Your task to perform on an android device: turn on location history Image 0: 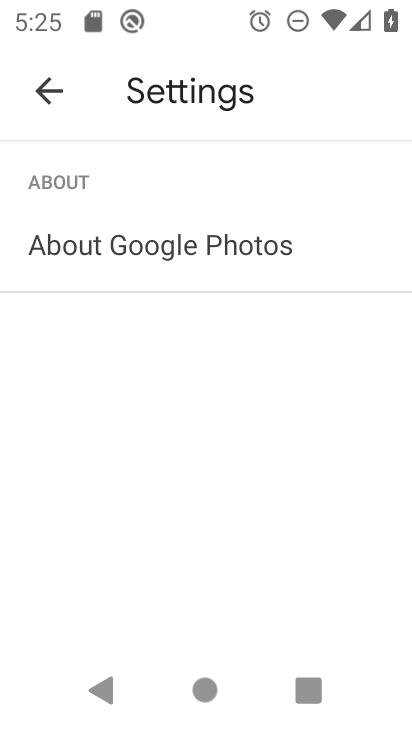
Step 0: press home button
Your task to perform on an android device: turn on location history Image 1: 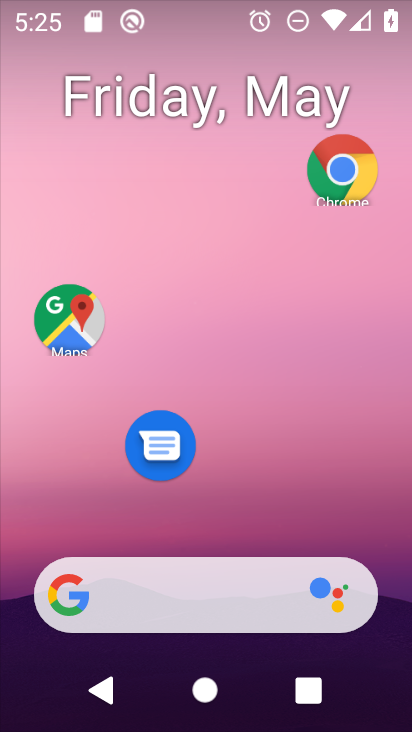
Step 1: drag from (195, 530) to (265, 173)
Your task to perform on an android device: turn on location history Image 2: 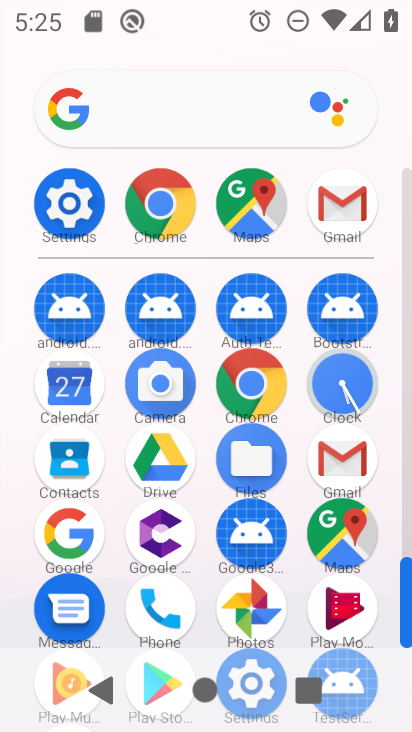
Step 2: click (62, 184)
Your task to perform on an android device: turn on location history Image 3: 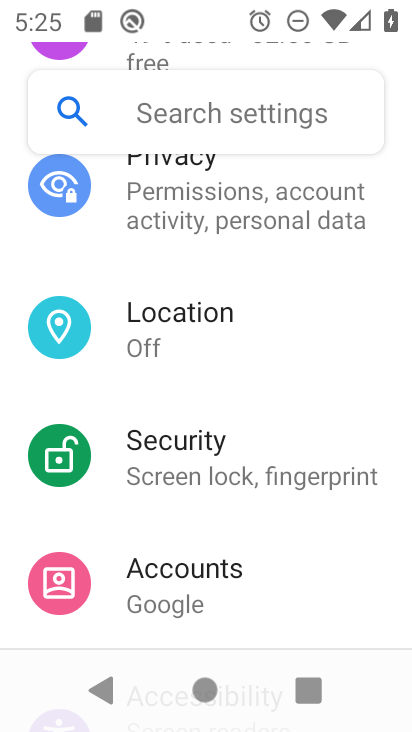
Step 3: click (226, 319)
Your task to perform on an android device: turn on location history Image 4: 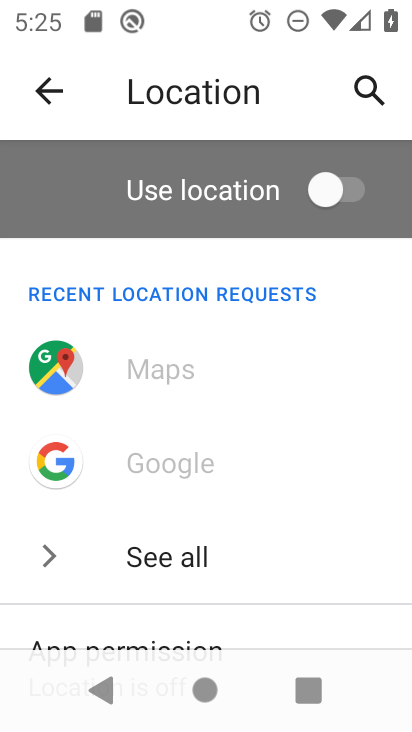
Step 4: drag from (246, 542) to (353, 251)
Your task to perform on an android device: turn on location history Image 5: 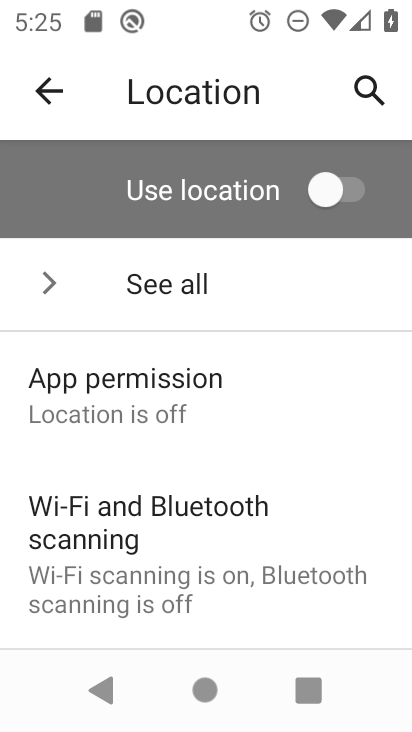
Step 5: drag from (257, 521) to (310, 312)
Your task to perform on an android device: turn on location history Image 6: 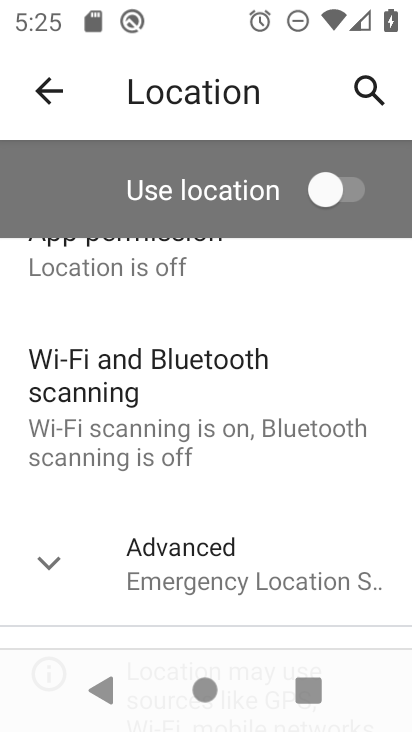
Step 6: drag from (263, 570) to (304, 363)
Your task to perform on an android device: turn on location history Image 7: 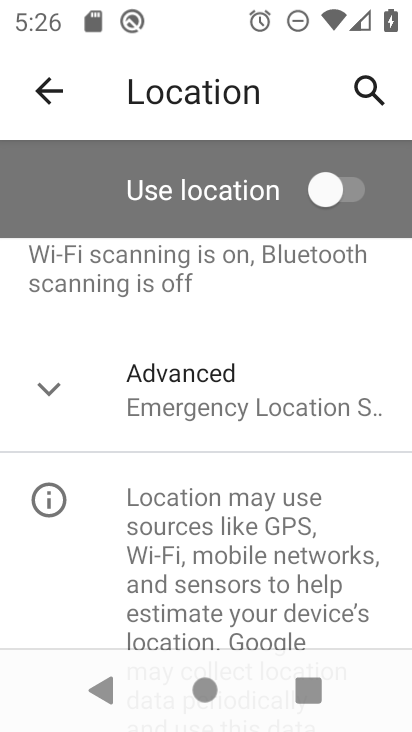
Step 7: click (234, 405)
Your task to perform on an android device: turn on location history Image 8: 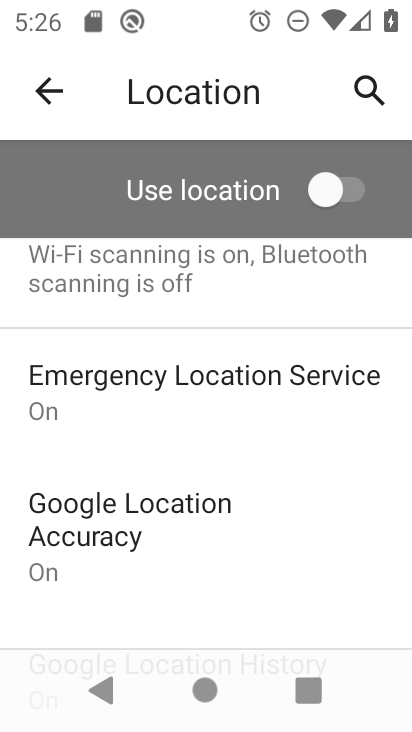
Step 8: drag from (209, 571) to (248, 425)
Your task to perform on an android device: turn on location history Image 9: 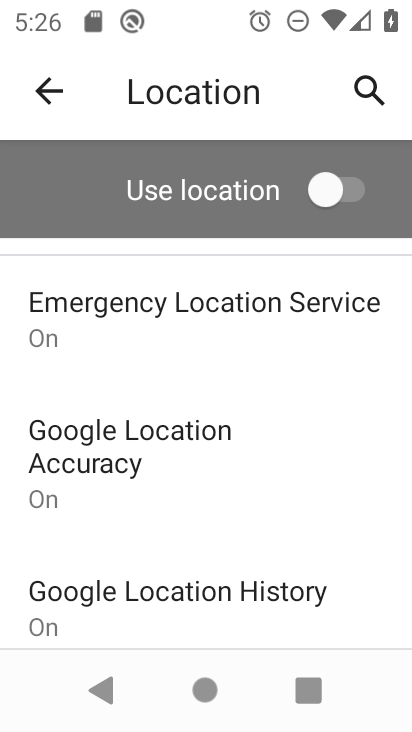
Step 9: drag from (218, 602) to (273, 308)
Your task to perform on an android device: turn on location history Image 10: 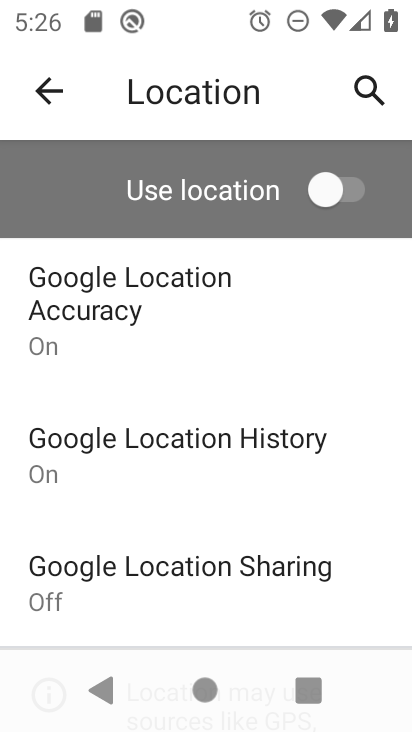
Step 10: click (167, 467)
Your task to perform on an android device: turn on location history Image 11: 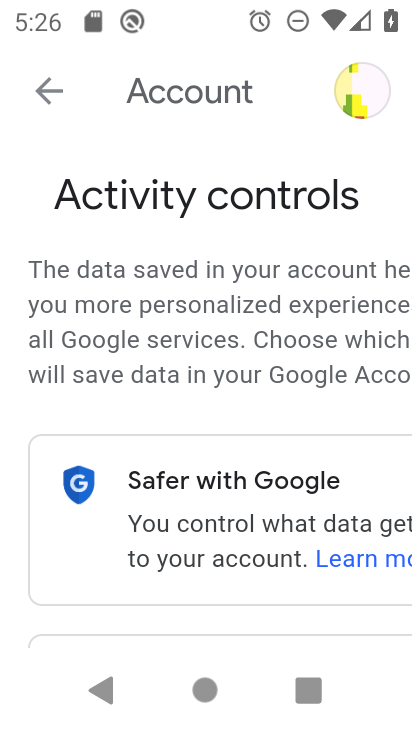
Step 11: task complete